Your task to perform on an android device: change the clock display to show seconds Image 0: 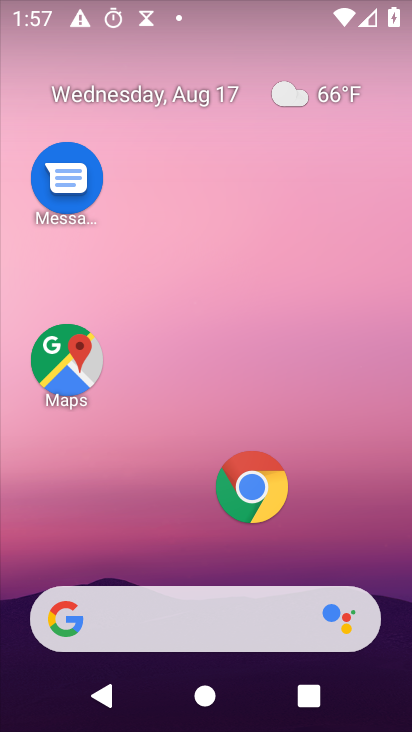
Step 0: press home button
Your task to perform on an android device: change the clock display to show seconds Image 1: 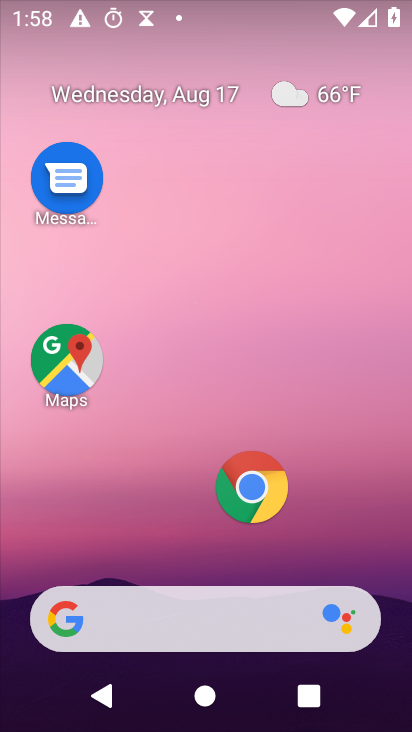
Step 1: drag from (198, 439) to (152, 50)
Your task to perform on an android device: change the clock display to show seconds Image 2: 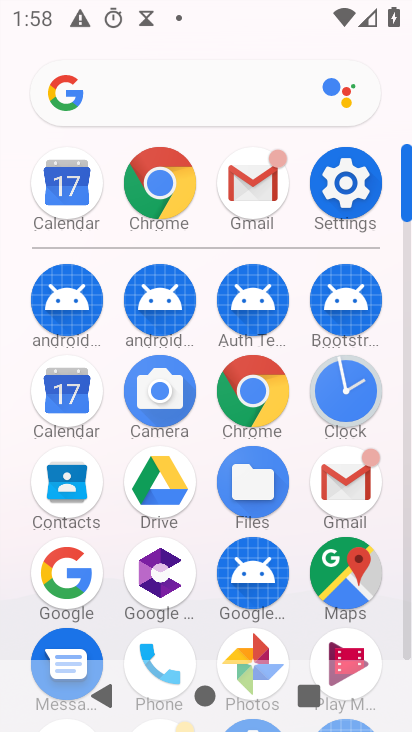
Step 2: click (355, 402)
Your task to perform on an android device: change the clock display to show seconds Image 3: 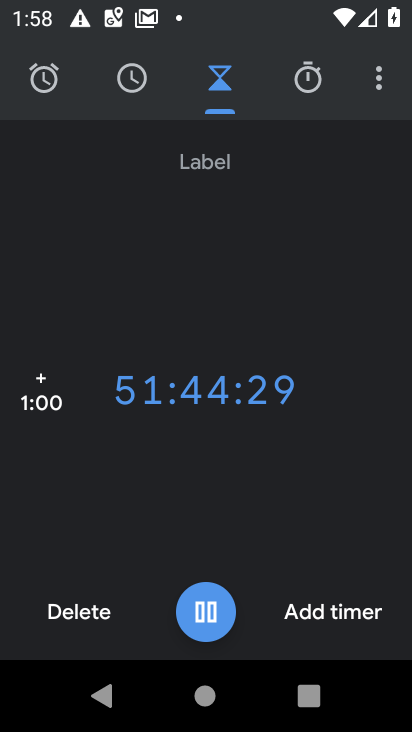
Step 3: click (387, 70)
Your task to perform on an android device: change the clock display to show seconds Image 4: 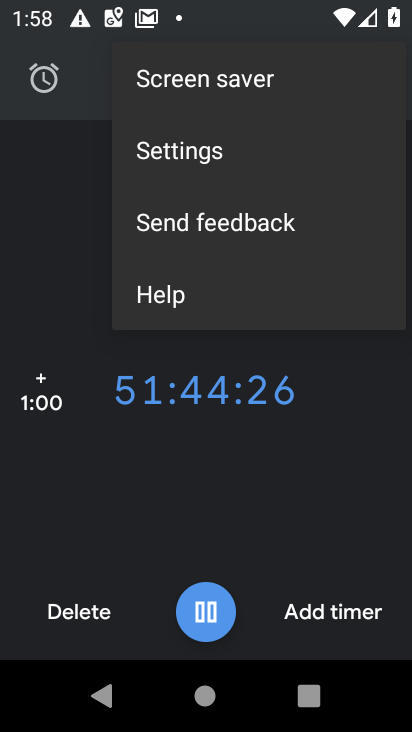
Step 4: click (159, 163)
Your task to perform on an android device: change the clock display to show seconds Image 5: 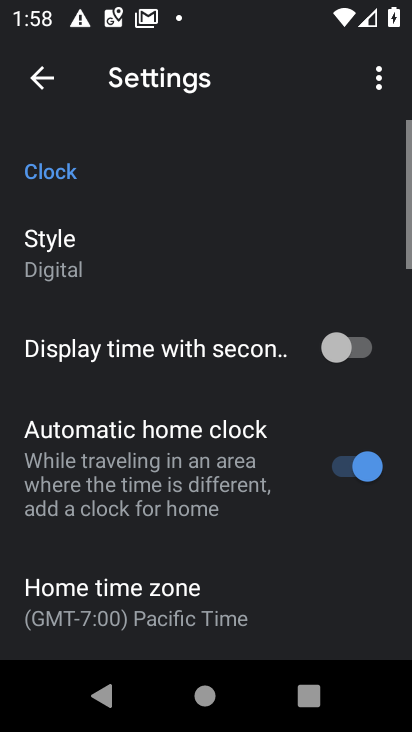
Step 5: click (347, 348)
Your task to perform on an android device: change the clock display to show seconds Image 6: 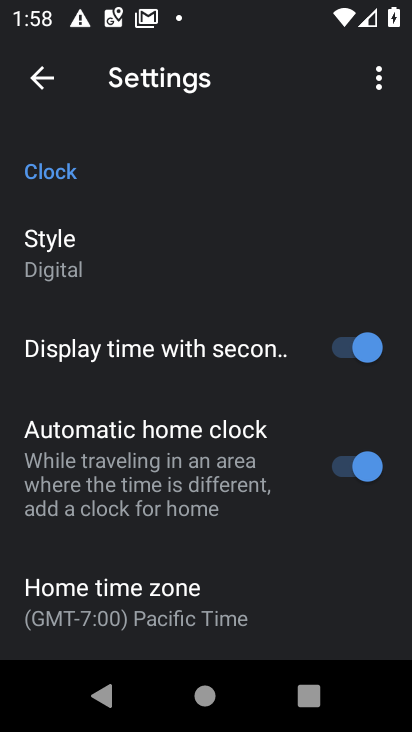
Step 6: task complete